Your task to perform on an android device: open app "DoorDash - Food Delivery" (install if not already installed) and enter user name: "Richard@outlook.com" and password: "informally" Image 0: 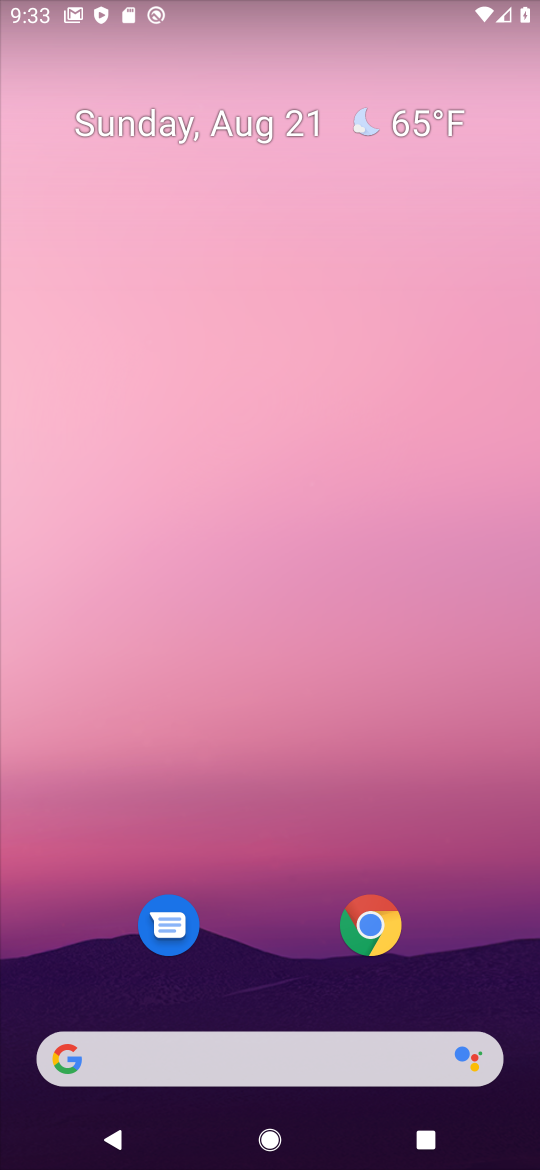
Step 0: drag from (249, 951) to (256, 86)
Your task to perform on an android device: open app "DoorDash - Food Delivery" (install if not already installed) and enter user name: "Richard@outlook.com" and password: "informally" Image 1: 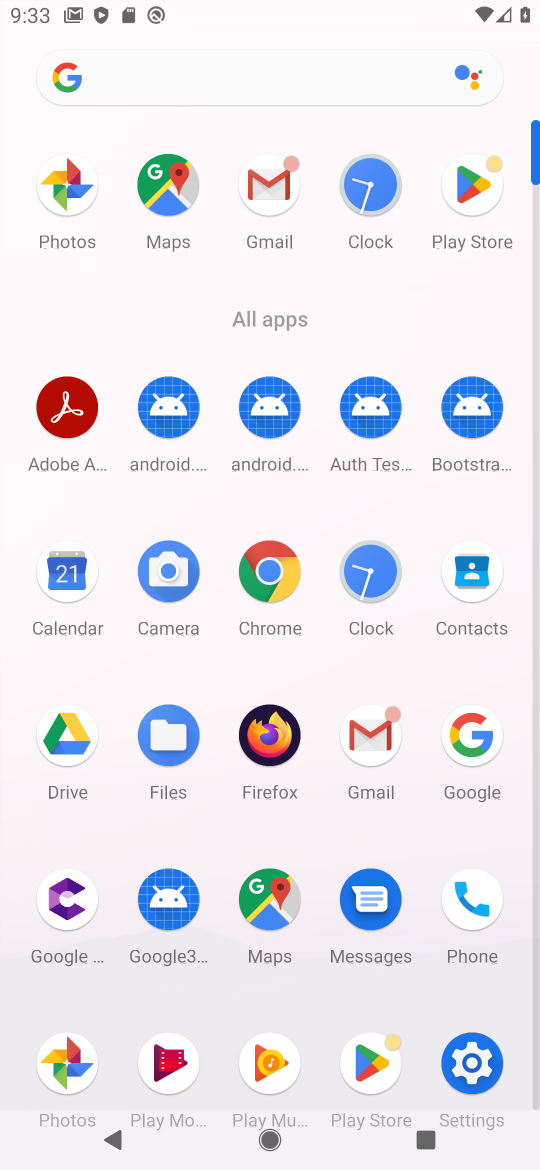
Step 1: click (483, 197)
Your task to perform on an android device: open app "DoorDash - Food Delivery" (install if not already installed) and enter user name: "Richard@outlook.com" and password: "informally" Image 2: 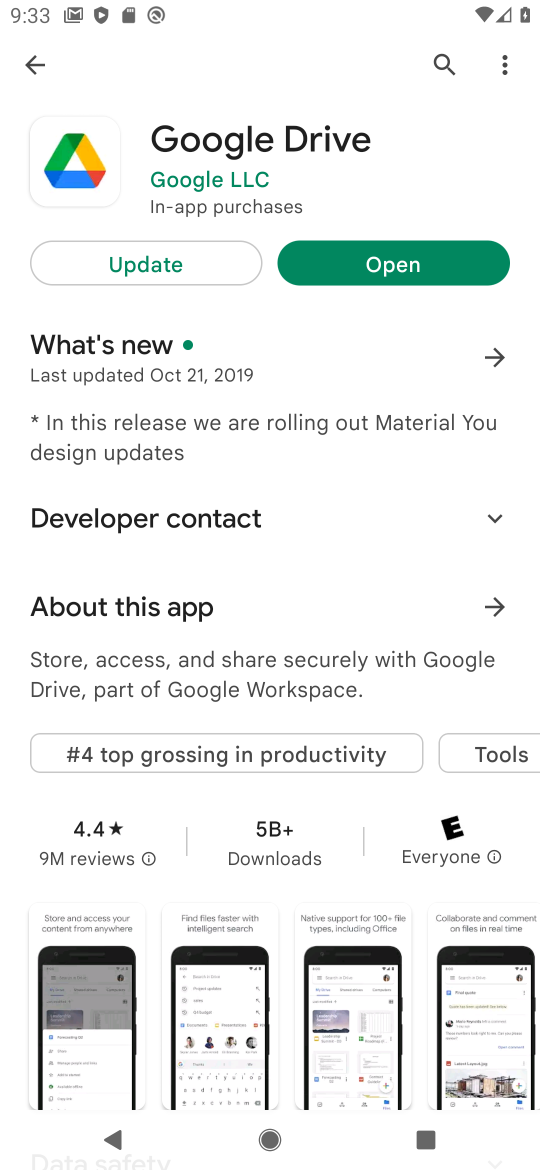
Step 2: click (434, 66)
Your task to perform on an android device: open app "DoorDash - Food Delivery" (install if not already installed) and enter user name: "Richard@outlook.com" and password: "informally" Image 3: 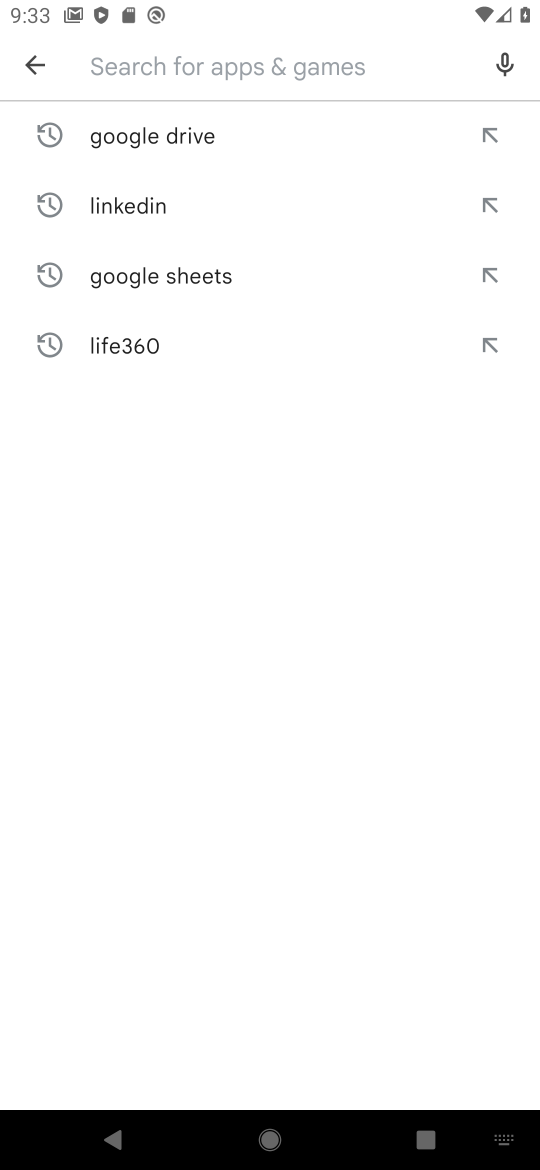
Step 3: click (227, 58)
Your task to perform on an android device: open app "DoorDash - Food Delivery" (install if not already installed) and enter user name: "Richard@outlook.com" and password: "informally" Image 4: 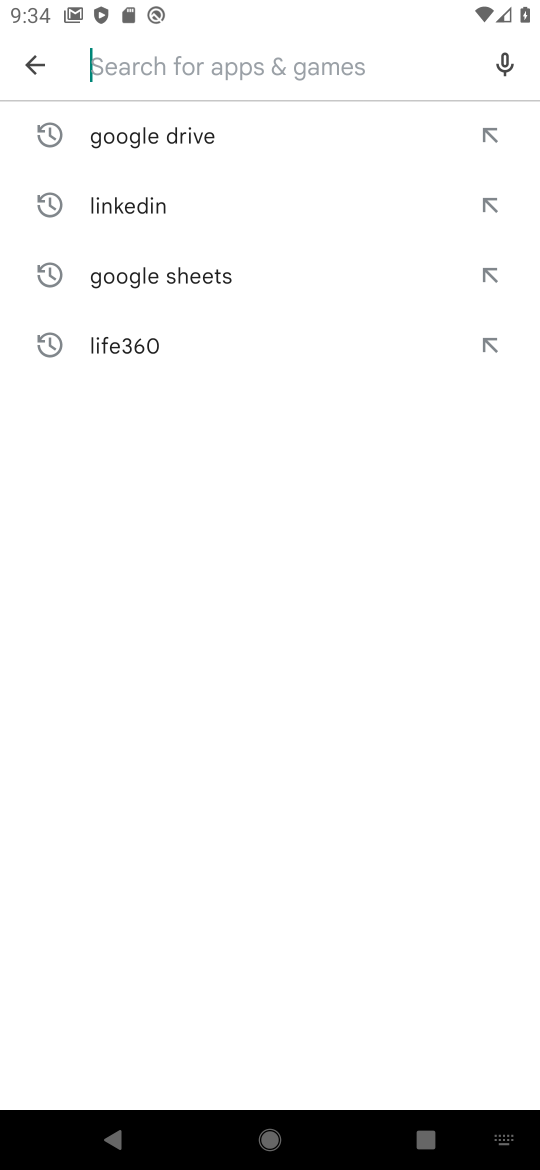
Step 4: type "doordash"
Your task to perform on an android device: open app "DoorDash - Food Delivery" (install if not already installed) and enter user name: "Richard@outlook.com" and password: "informally" Image 5: 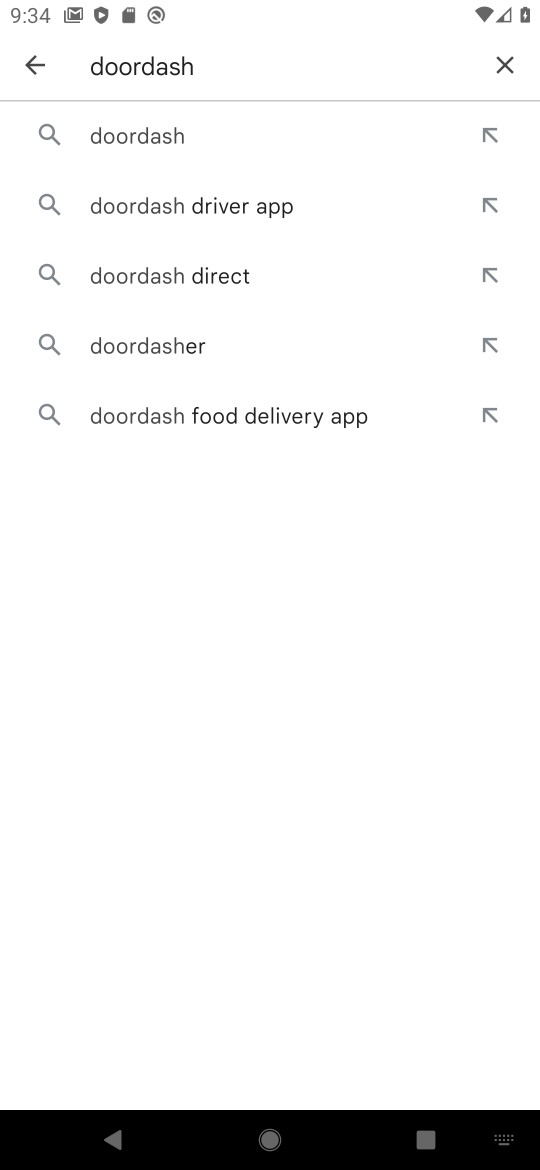
Step 5: click (116, 115)
Your task to perform on an android device: open app "DoorDash - Food Delivery" (install if not already installed) and enter user name: "Richard@outlook.com" and password: "informally" Image 6: 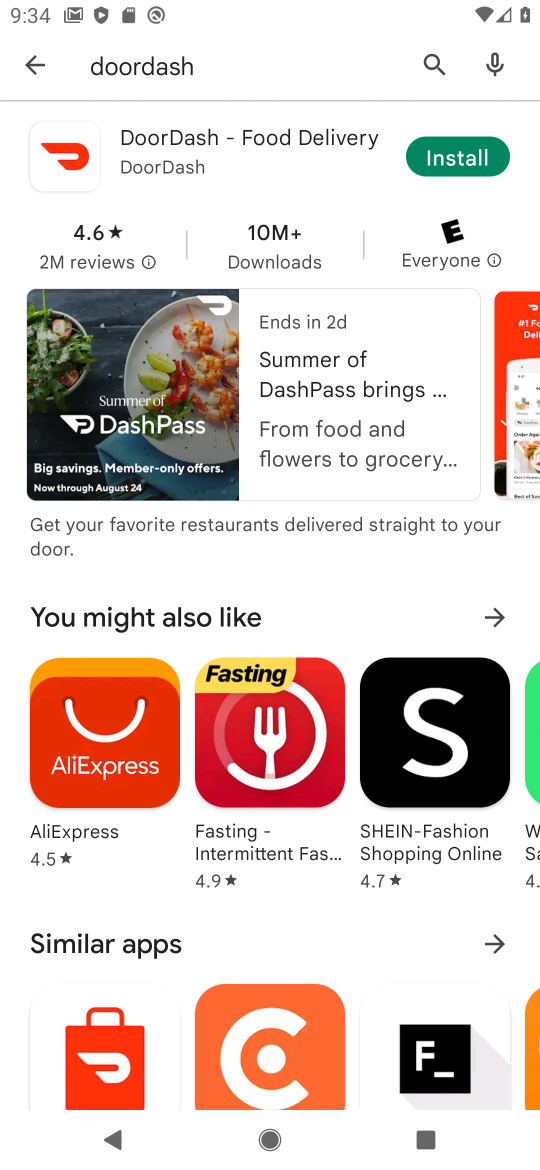
Step 6: click (457, 156)
Your task to perform on an android device: open app "DoorDash - Food Delivery" (install if not already installed) and enter user name: "Richard@outlook.com" and password: "informally" Image 7: 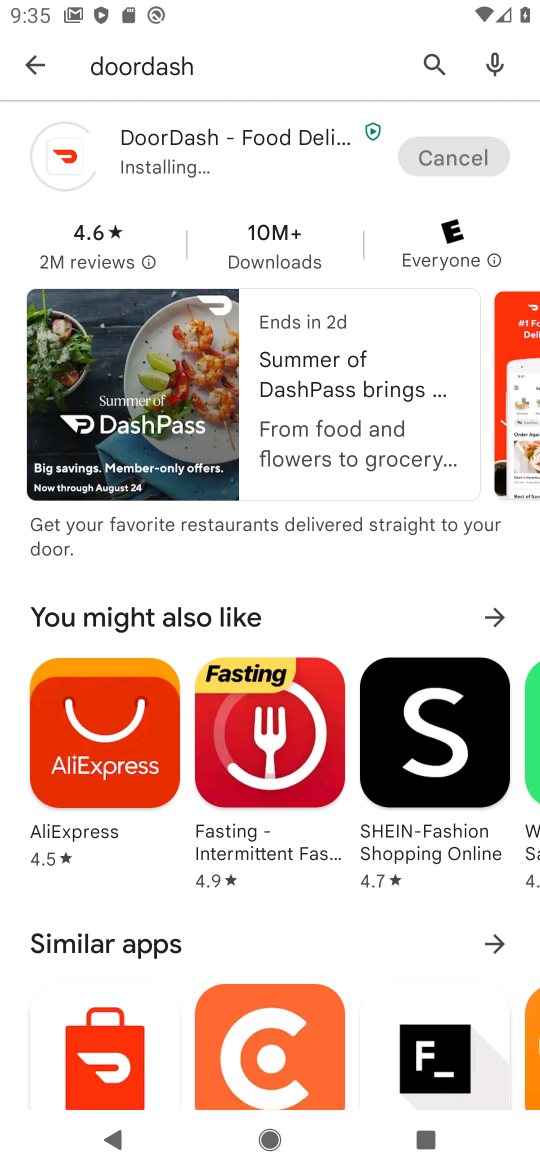
Step 7: task complete